Your task to perform on an android device: clear history in the chrome app Image 0: 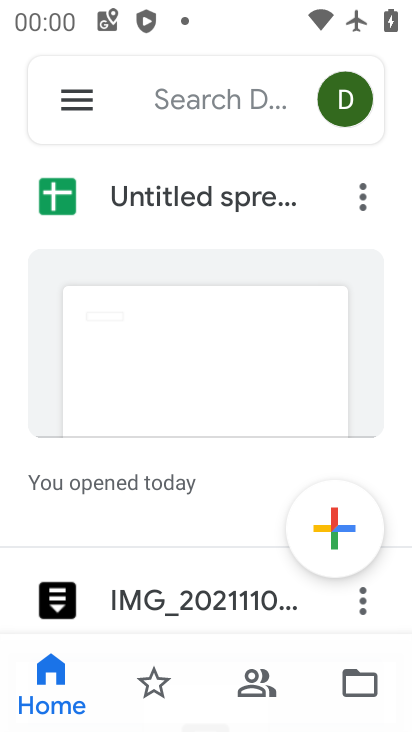
Step 0: press home button
Your task to perform on an android device: clear history in the chrome app Image 1: 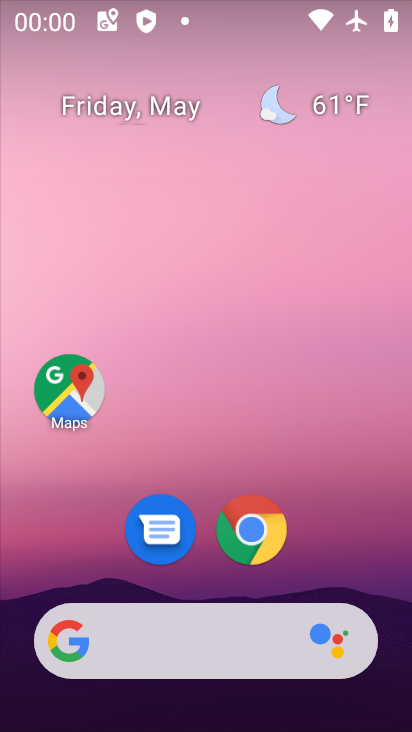
Step 1: click (262, 546)
Your task to perform on an android device: clear history in the chrome app Image 2: 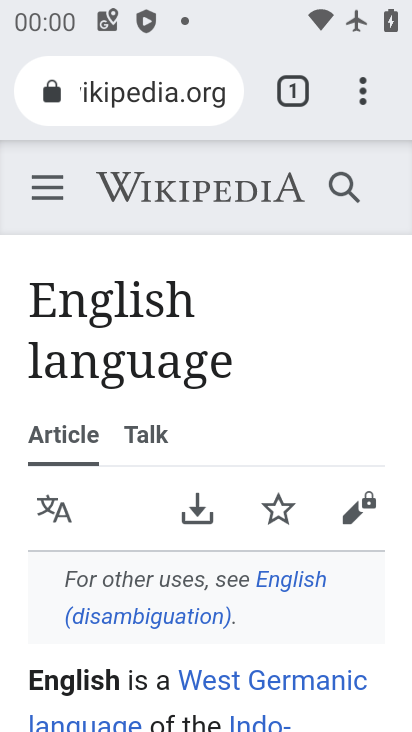
Step 2: click (379, 88)
Your task to perform on an android device: clear history in the chrome app Image 3: 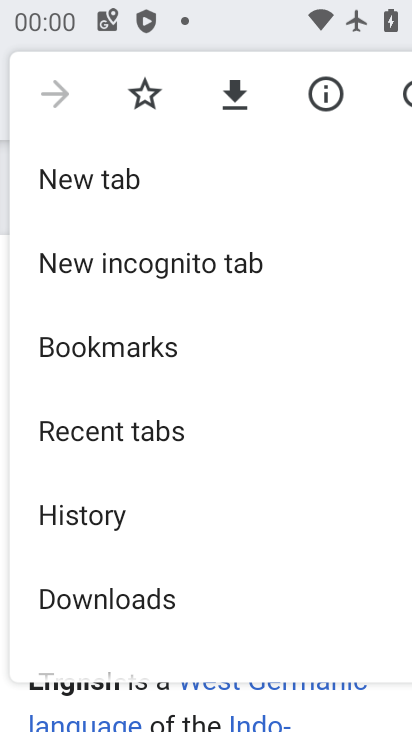
Step 3: drag from (127, 519) to (139, 358)
Your task to perform on an android device: clear history in the chrome app Image 4: 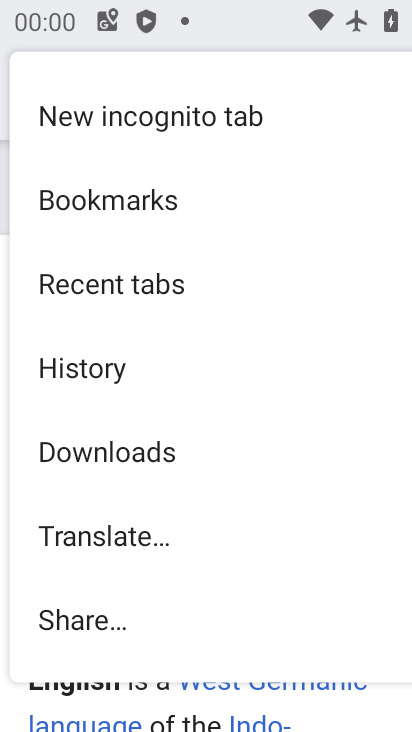
Step 4: click (158, 373)
Your task to perform on an android device: clear history in the chrome app Image 5: 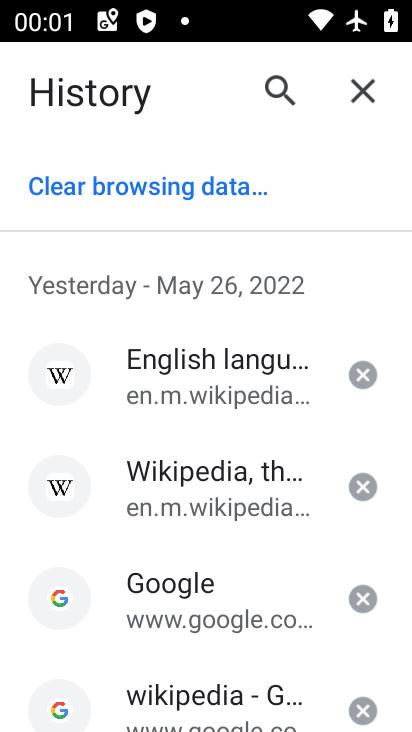
Step 5: click (223, 199)
Your task to perform on an android device: clear history in the chrome app Image 6: 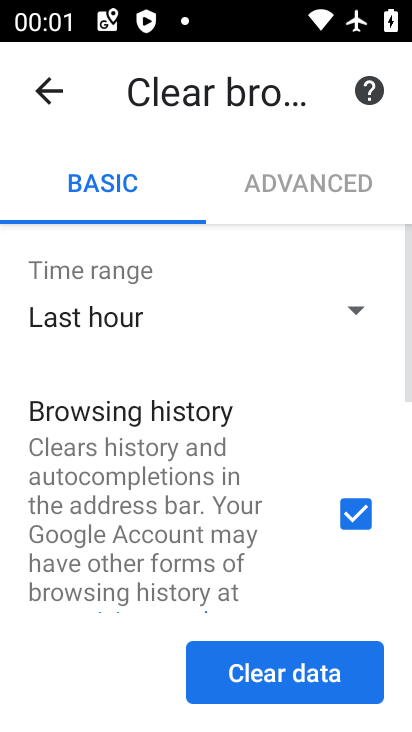
Step 6: click (293, 672)
Your task to perform on an android device: clear history in the chrome app Image 7: 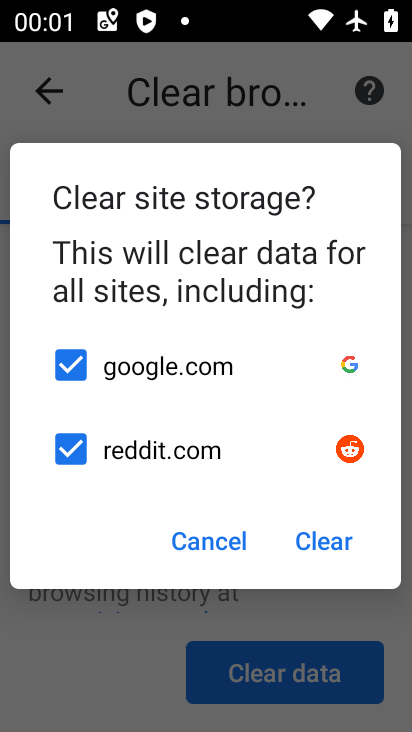
Step 7: click (318, 542)
Your task to perform on an android device: clear history in the chrome app Image 8: 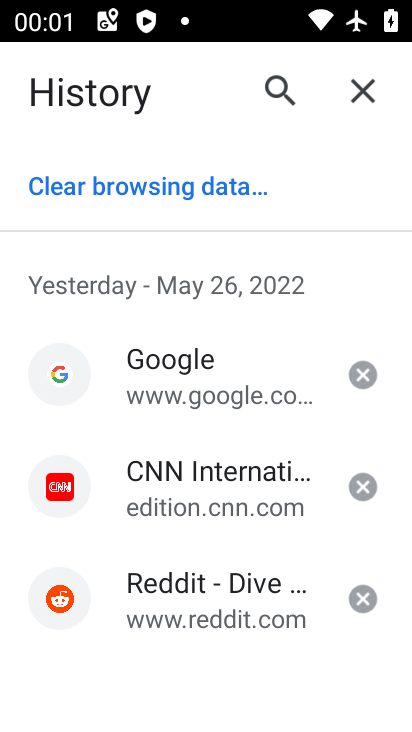
Step 8: task complete